Your task to perform on an android device: change text size in settings app Image 0: 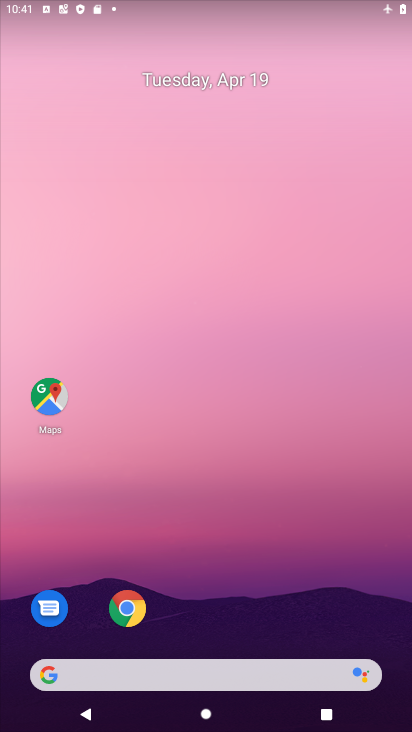
Step 0: drag from (385, 624) to (309, 212)
Your task to perform on an android device: change text size in settings app Image 1: 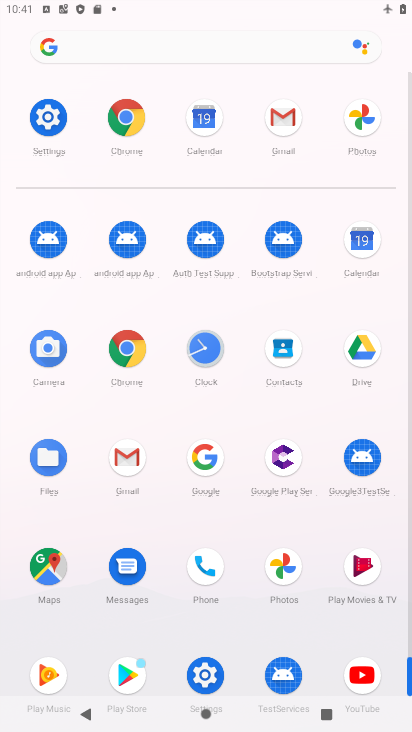
Step 1: click (202, 676)
Your task to perform on an android device: change text size in settings app Image 2: 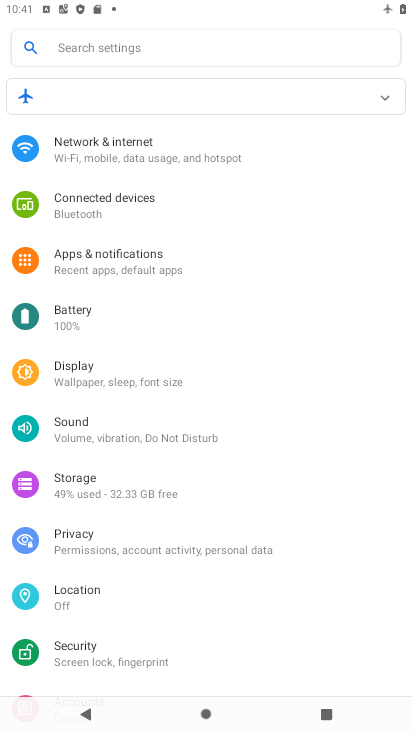
Step 2: click (81, 370)
Your task to perform on an android device: change text size in settings app Image 3: 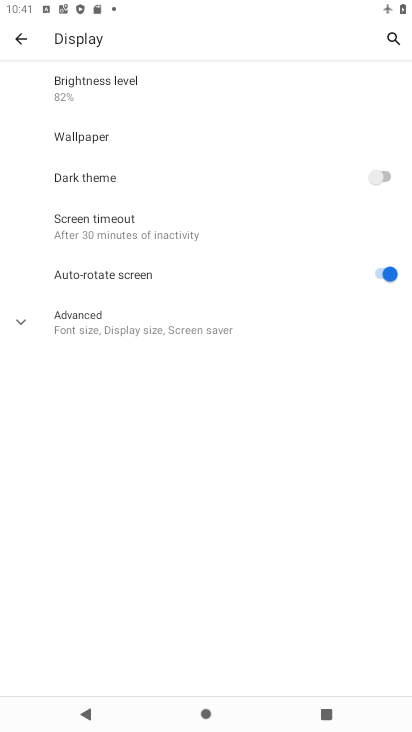
Step 3: click (17, 322)
Your task to perform on an android device: change text size in settings app Image 4: 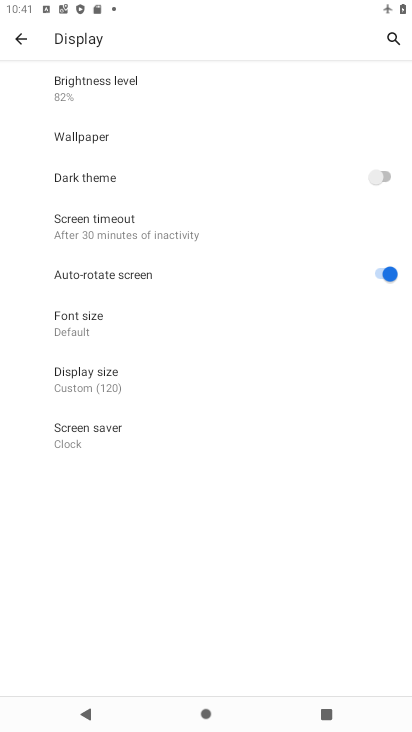
Step 4: click (70, 323)
Your task to perform on an android device: change text size in settings app Image 5: 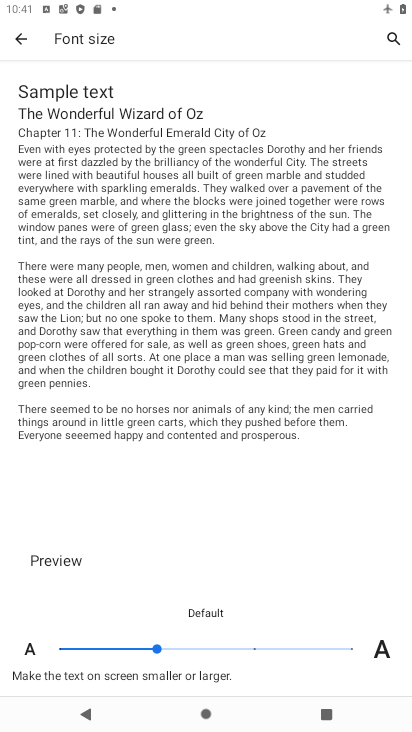
Step 5: click (254, 648)
Your task to perform on an android device: change text size in settings app Image 6: 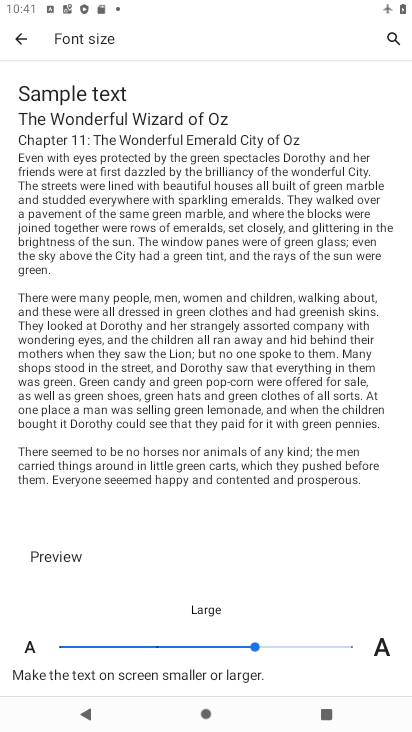
Step 6: task complete